Your task to perform on an android device: open app "AliExpress" (install if not already installed) Image 0: 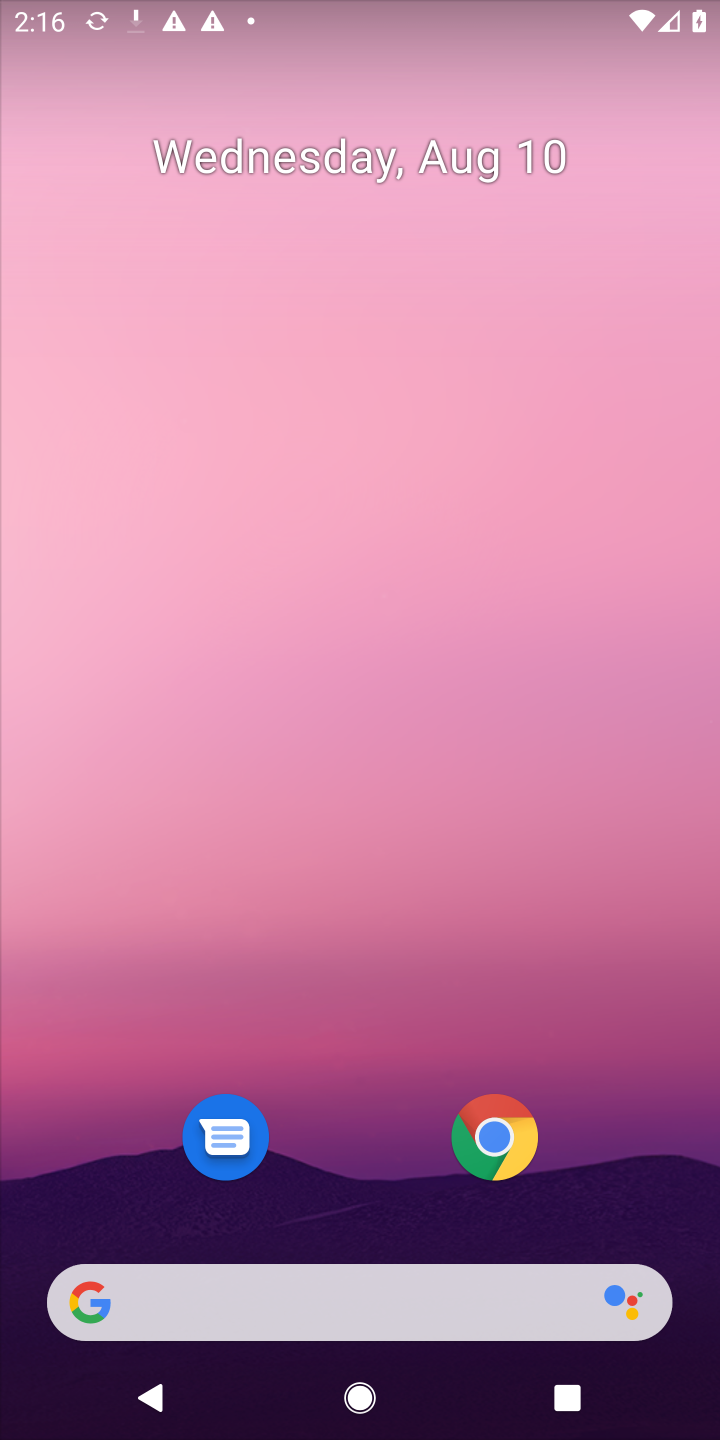
Step 0: drag from (338, 421) to (208, 3)
Your task to perform on an android device: open app "AliExpress" (install if not already installed) Image 1: 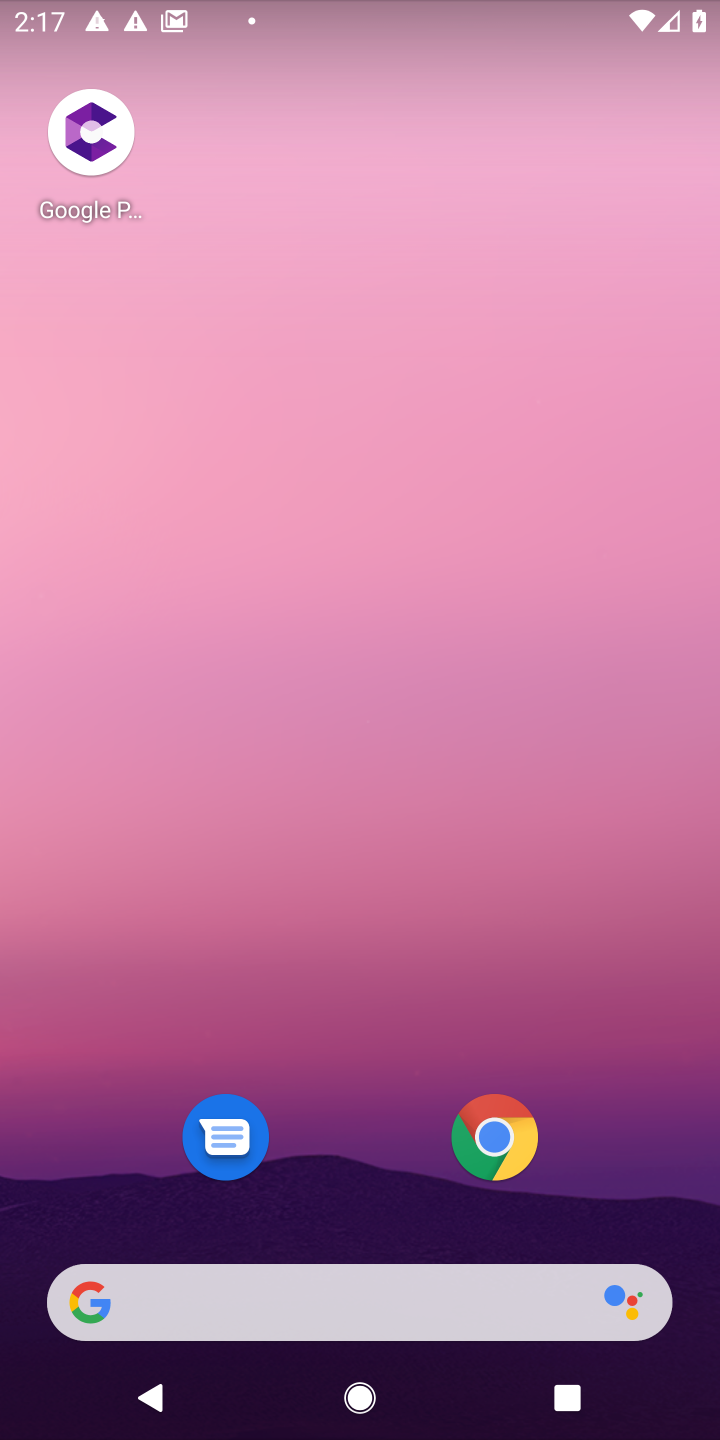
Step 1: drag from (308, 1164) to (265, 4)
Your task to perform on an android device: open app "AliExpress" (install if not already installed) Image 2: 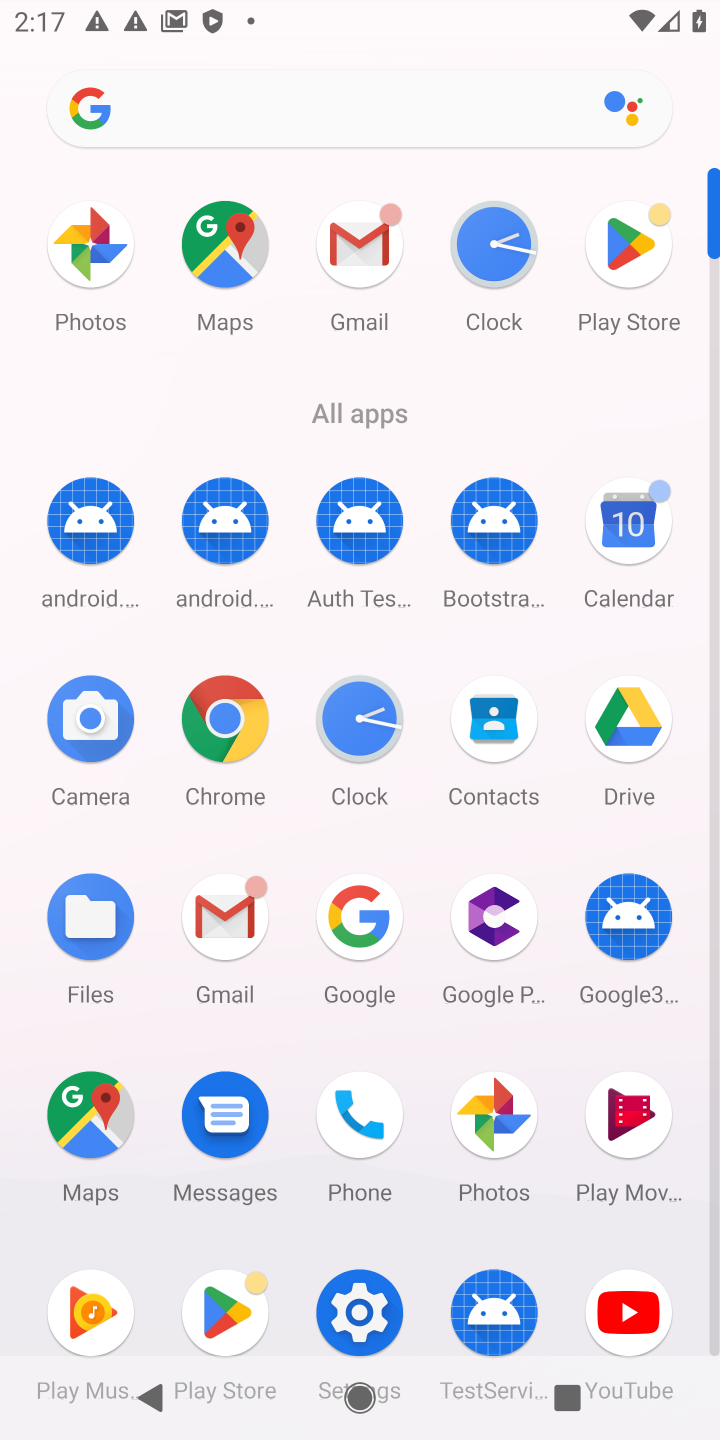
Step 2: click (203, 1303)
Your task to perform on an android device: open app "AliExpress" (install if not already installed) Image 3: 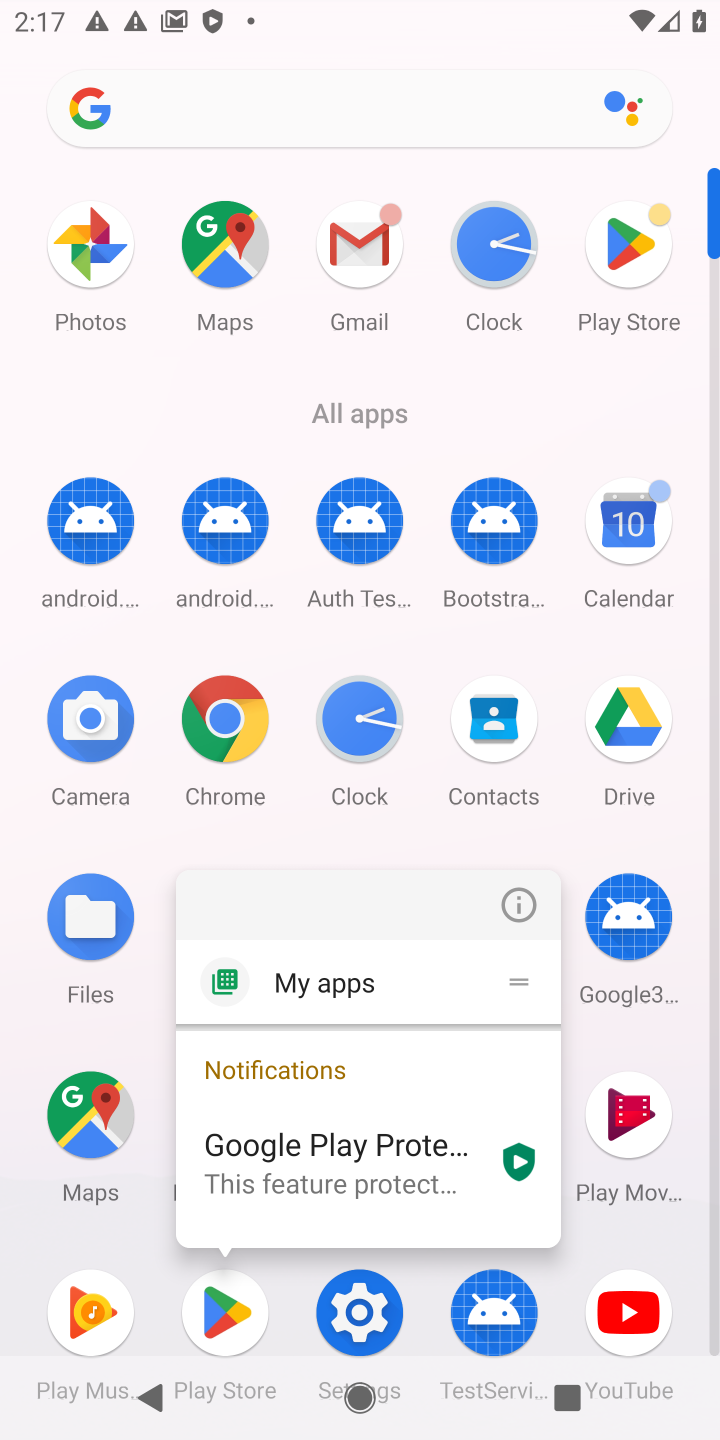
Step 3: click (202, 1323)
Your task to perform on an android device: open app "AliExpress" (install if not already installed) Image 4: 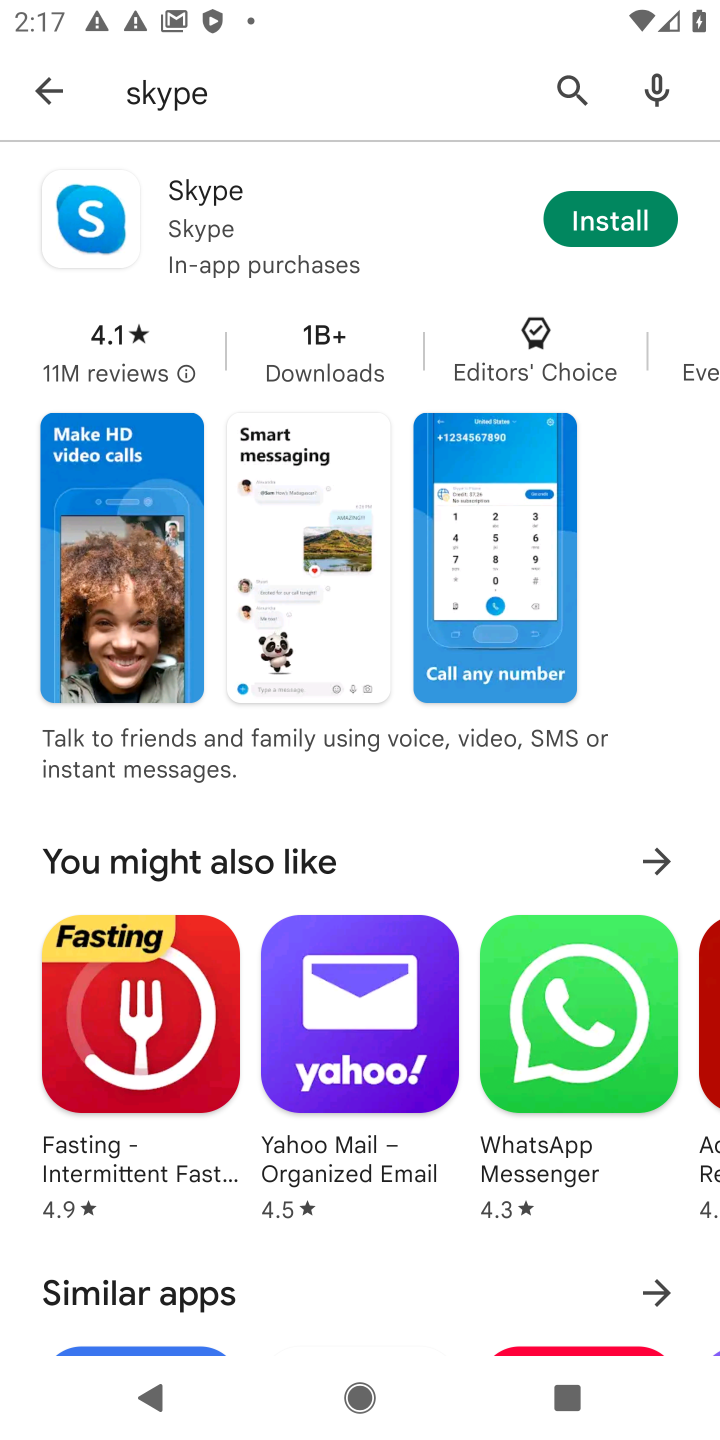
Step 4: click (57, 91)
Your task to perform on an android device: open app "AliExpress" (install if not already installed) Image 5: 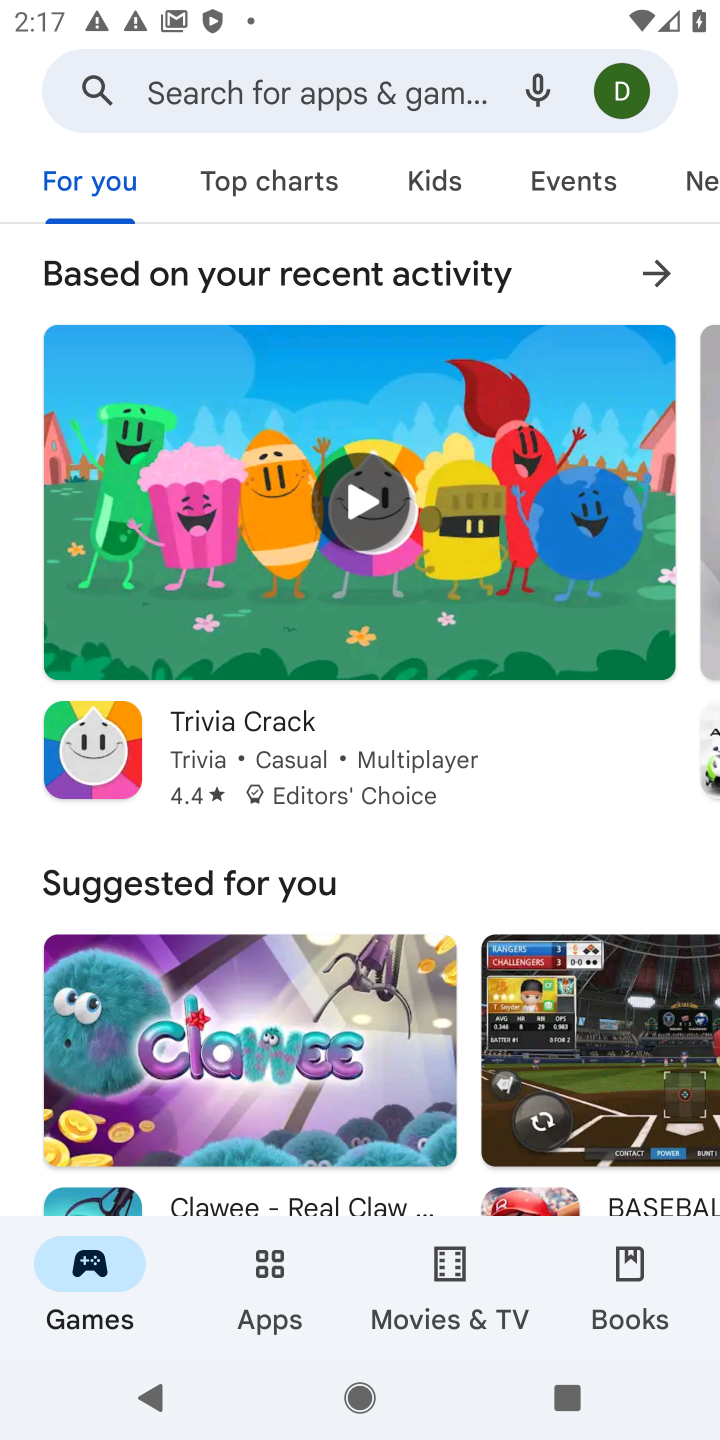
Step 5: click (244, 133)
Your task to perform on an android device: open app "AliExpress" (install if not already installed) Image 6: 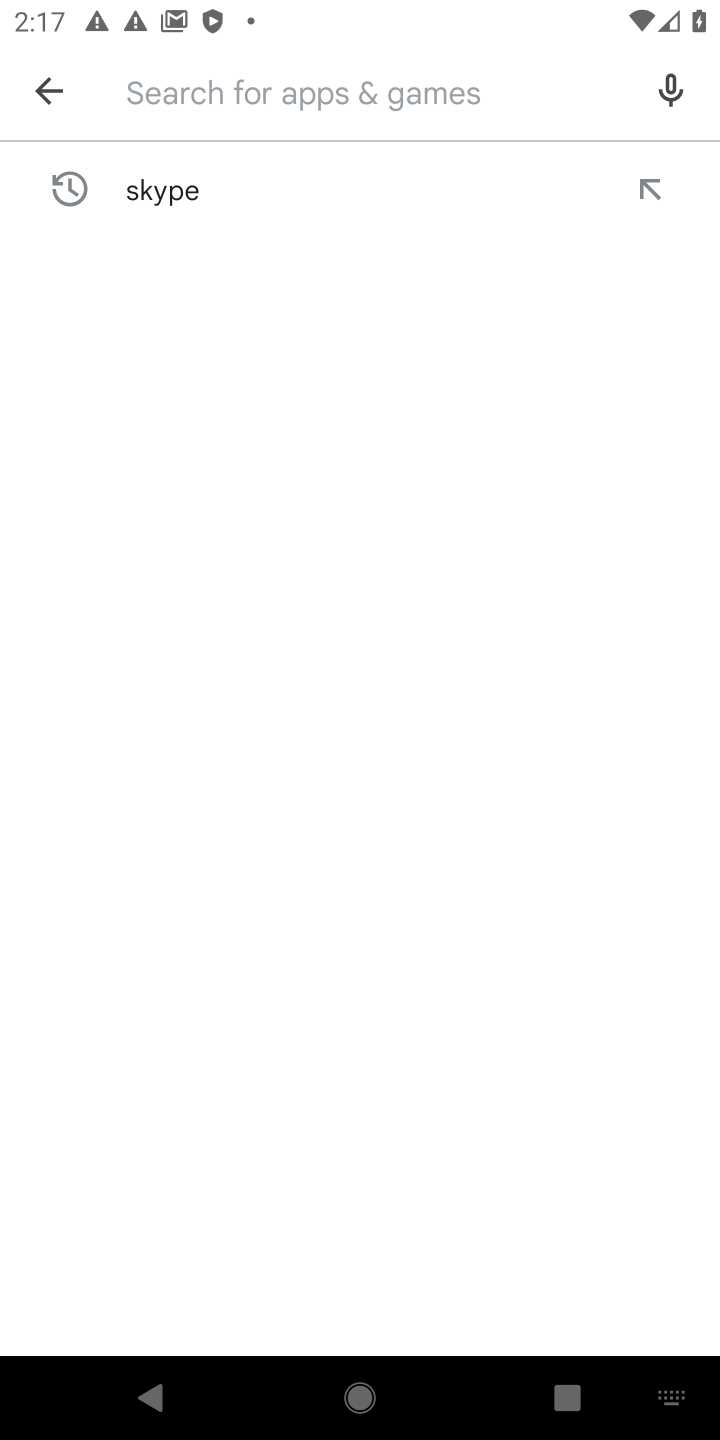
Step 6: type "AliExpress"
Your task to perform on an android device: open app "AliExpress" (install if not already installed) Image 7: 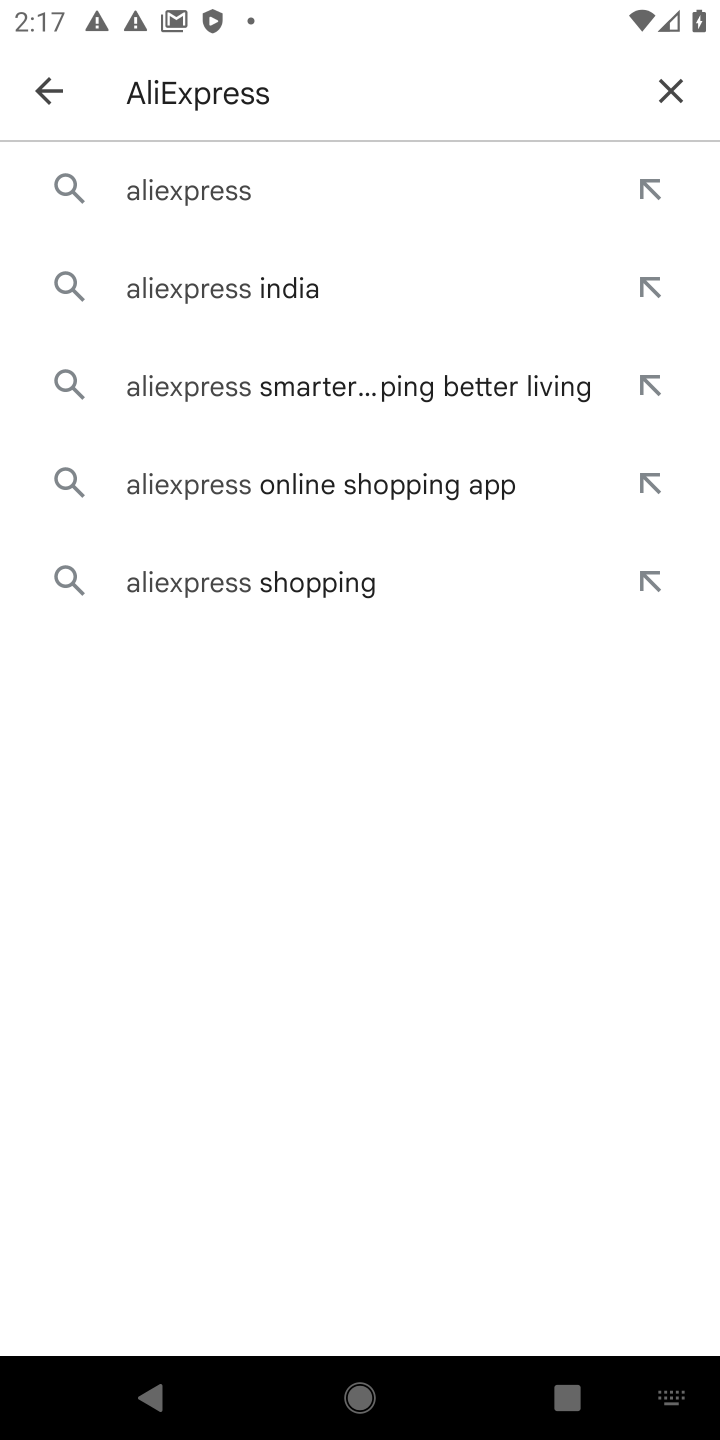
Step 7: click (218, 199)
Your task to perform on an android device: open app "AliExpress" (install if not already installed) Image 8: 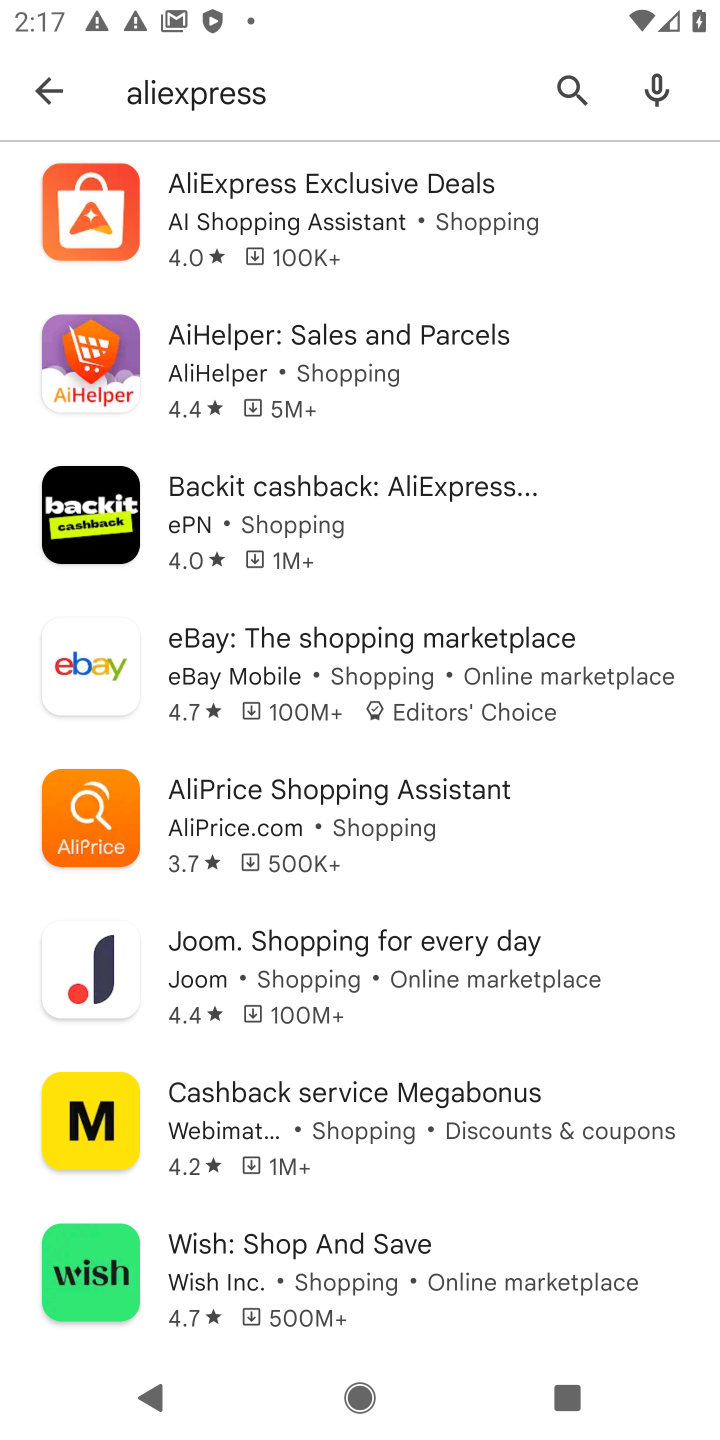
Step 8: click (395, 236)
Your task to perform on an android device: open app "AliExpress" (install if not already installed) Image 9: 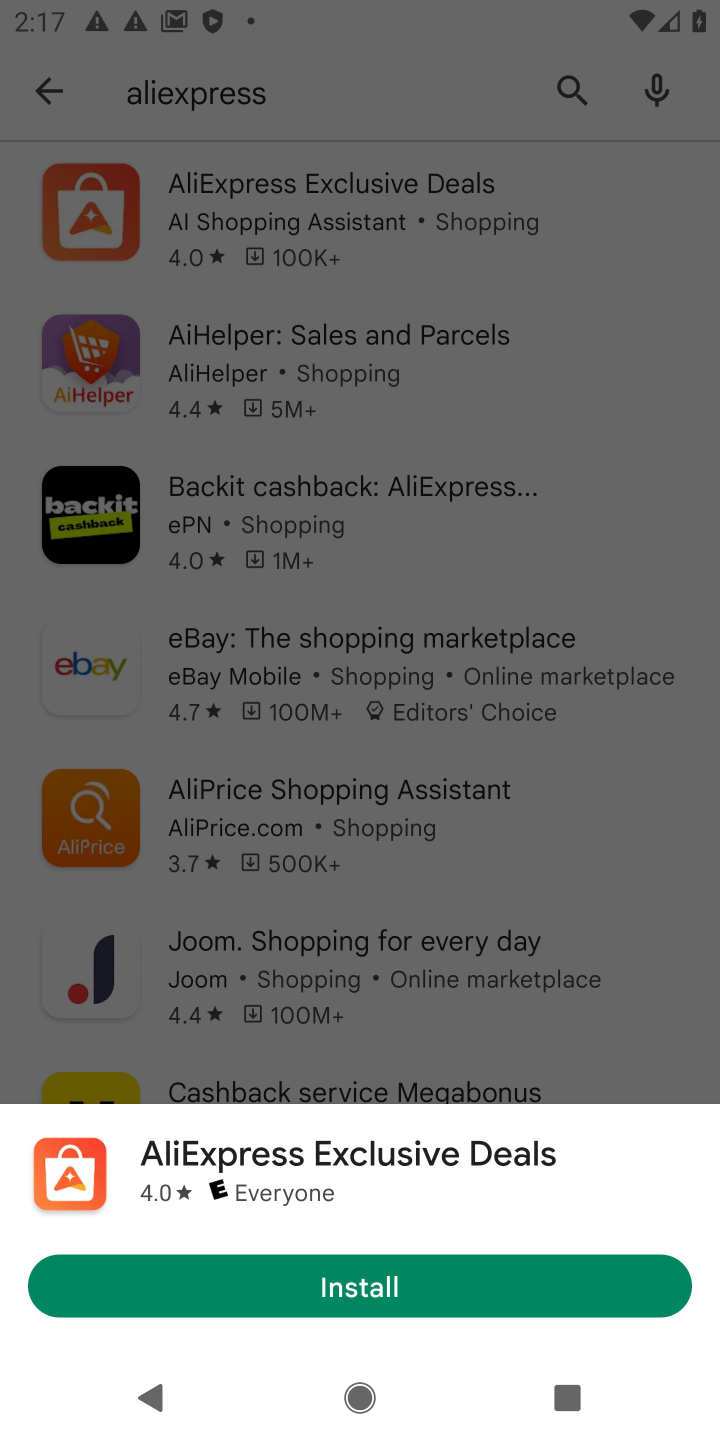
Step 9: click (401, 1284)
Your task to perform on an android device: open app "AliExpress" (install if not already installed) Image 10: 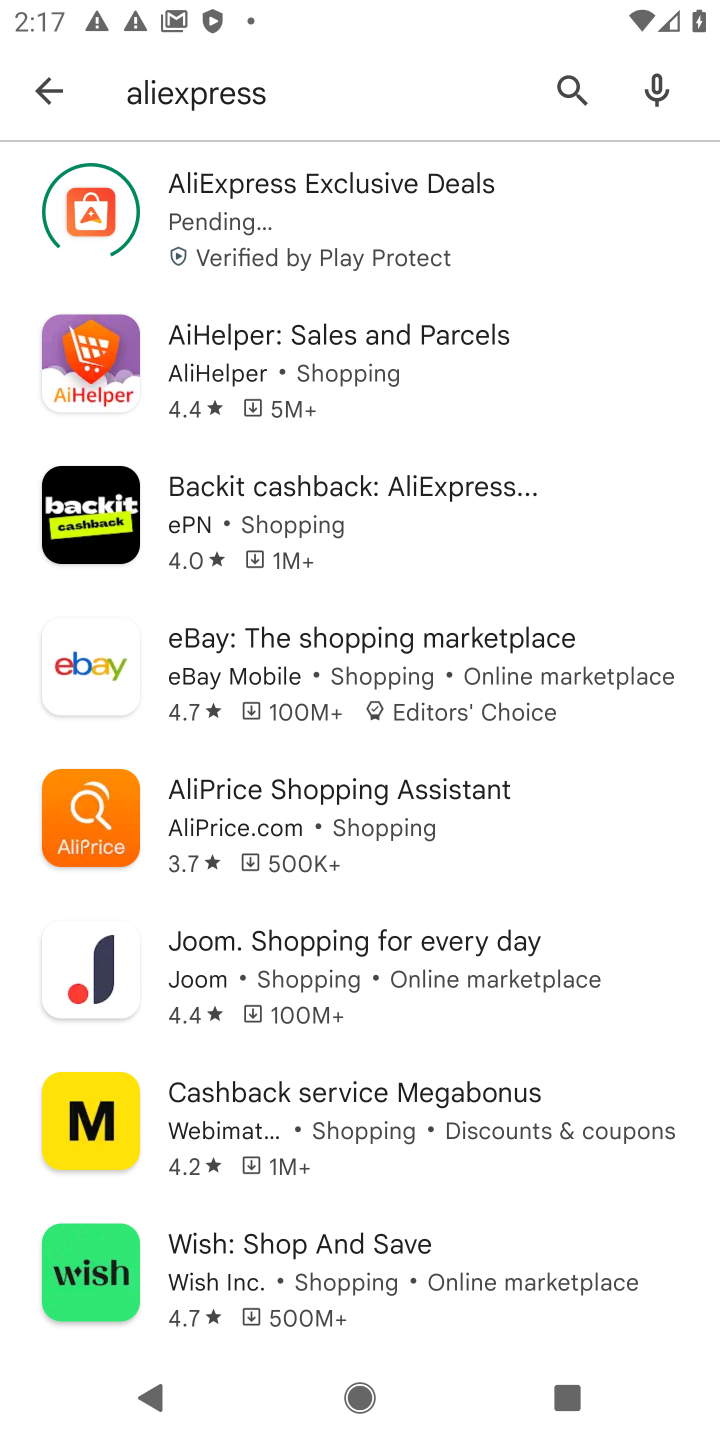
Step 10: click (330, 210)
Your task to perform on an android device: open app "AliExpress" (install if not already installed) Image 11: 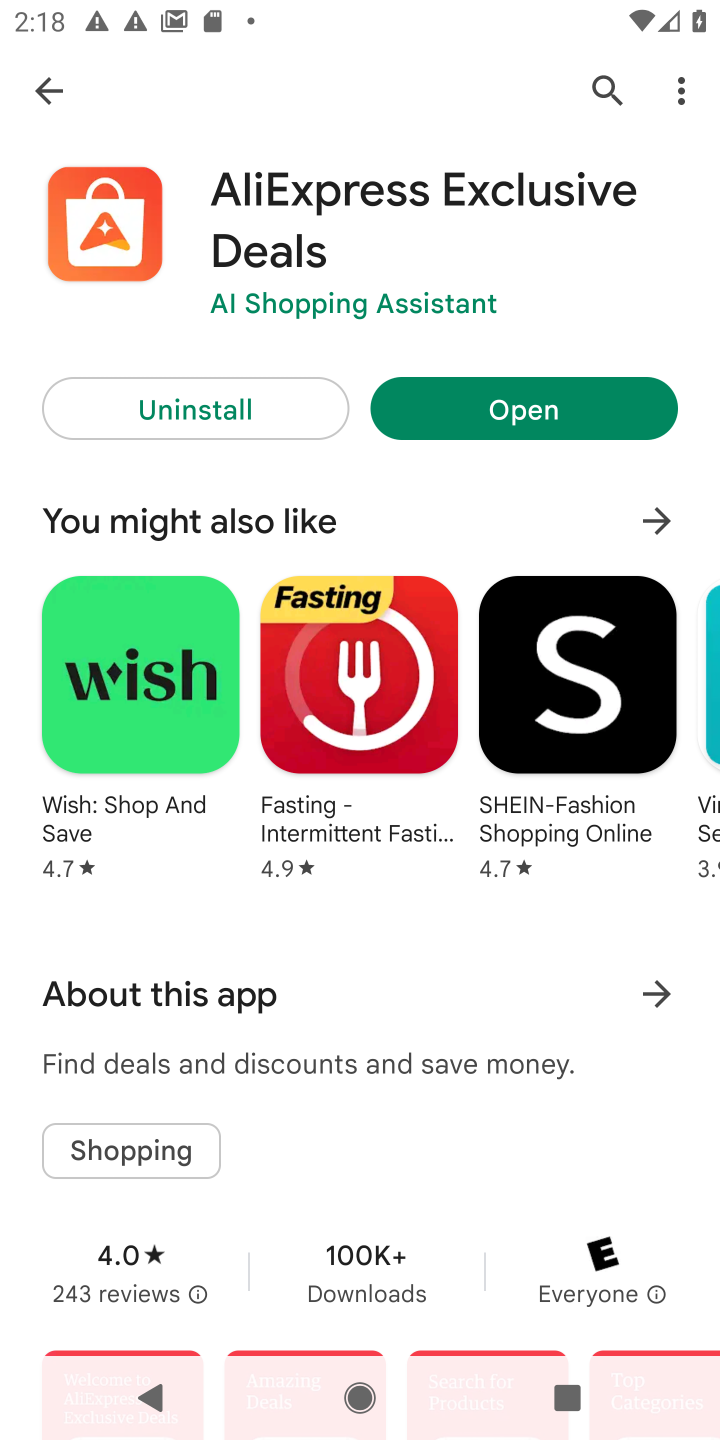
Step 11: click (514, 406)
Your task to perform on an android device: open app "AliExpress" (install if not already installed) Image 12: 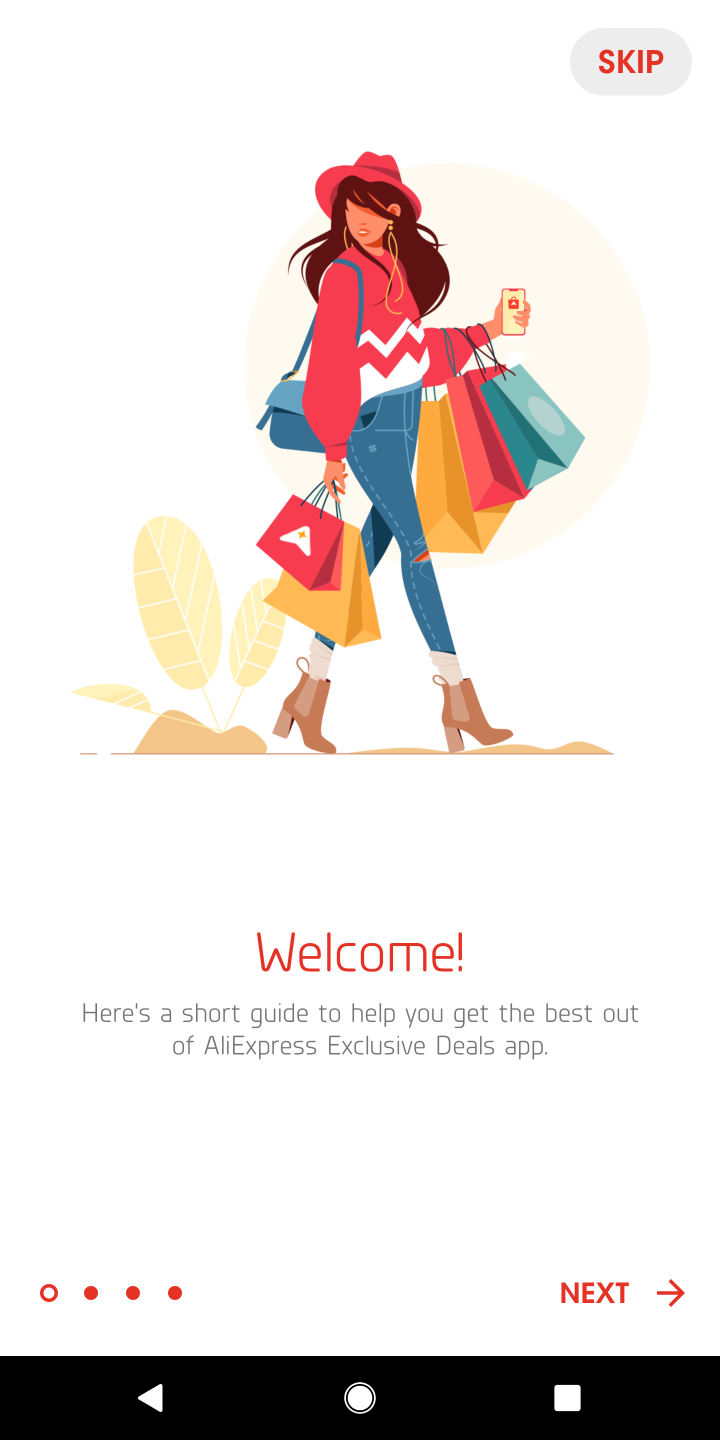
Step 12: click (631, 66)
Your task to perform on an android device: open app "AliExpress" (install if not already installed) Image 13: 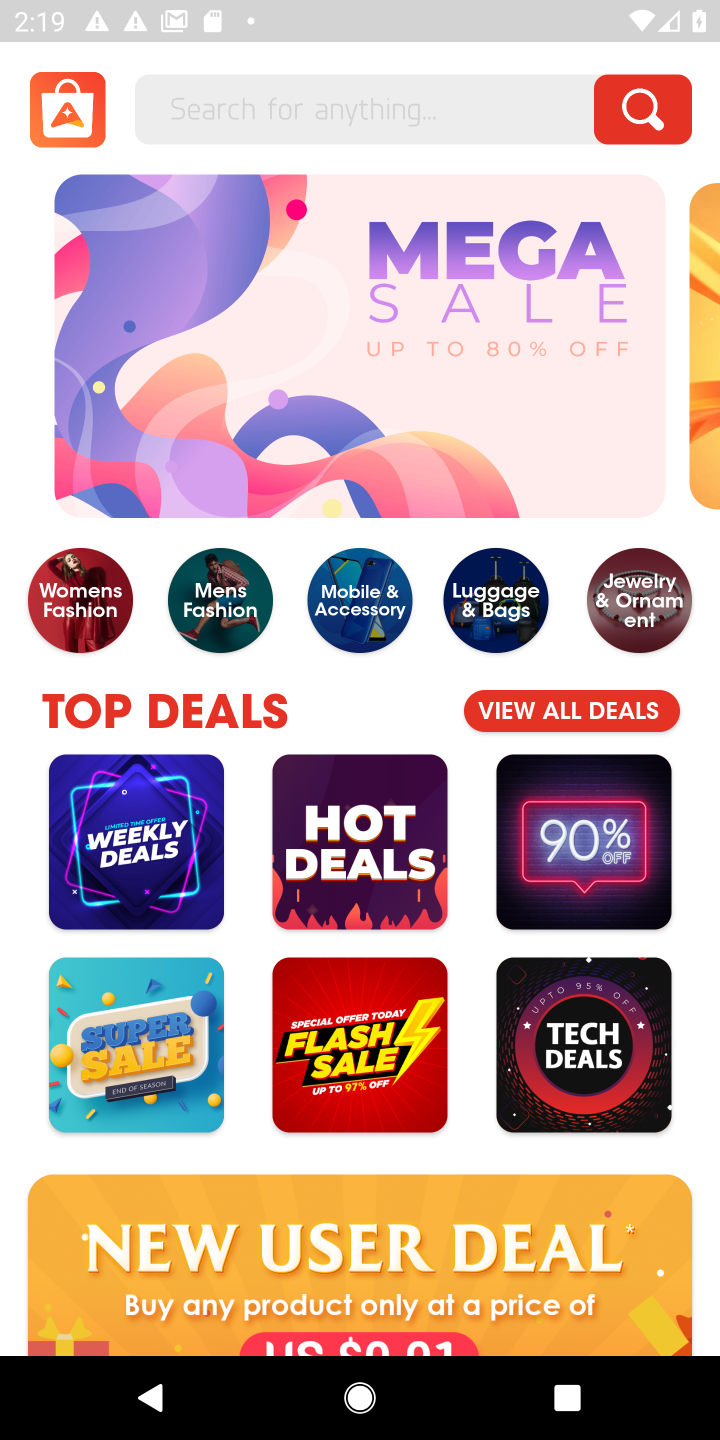
Step 13: task complete